Your task to perform on an android device: What's on my calendar today? Image 0: 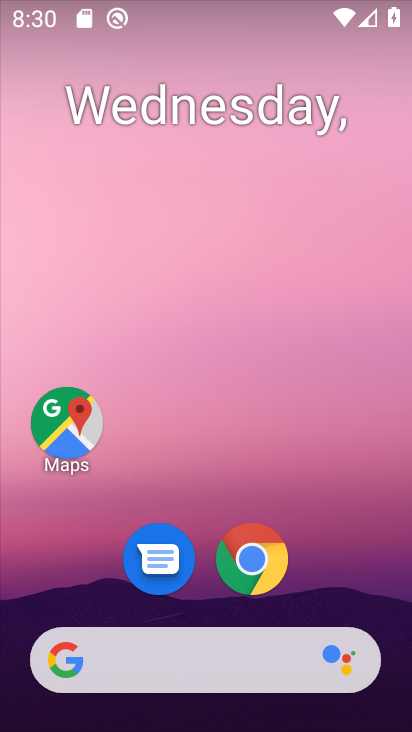
Step 0: drag from (350, 561) to (362, 160)
Your task to perform on an android device: What's on my calendar today? Image 1: 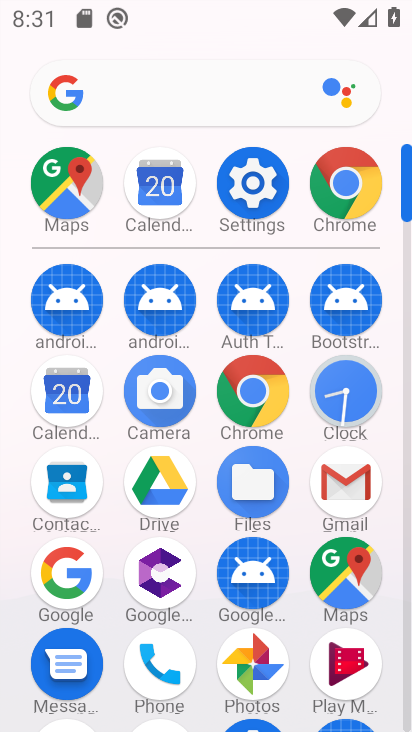
Step 1: click (64, 399)
Your task to perform on an android device: What's on my calendar today? Image 2: 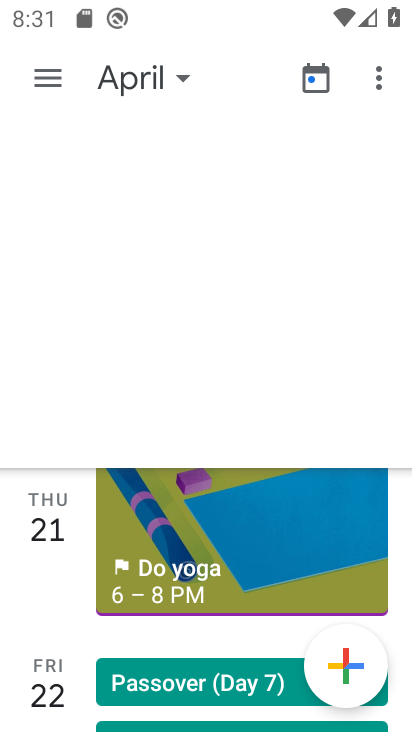
Step 2: click (131, 80)
Your task to perform on an android device: What's on my calendar today? Image 3: 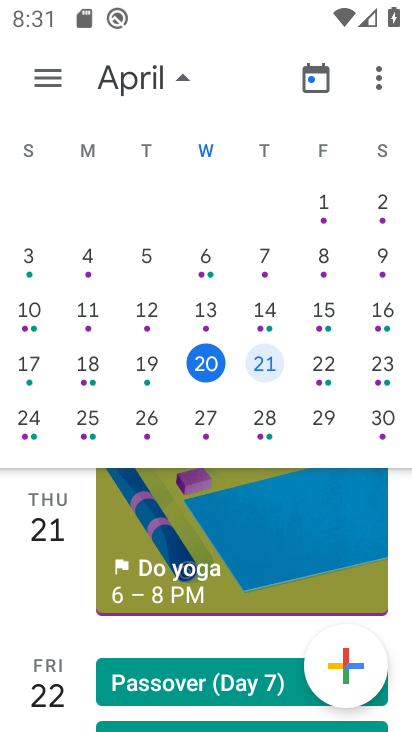
Step 3: click (205, 367)
Your task to perform on an android device: What's on my calendar today? Image 4: 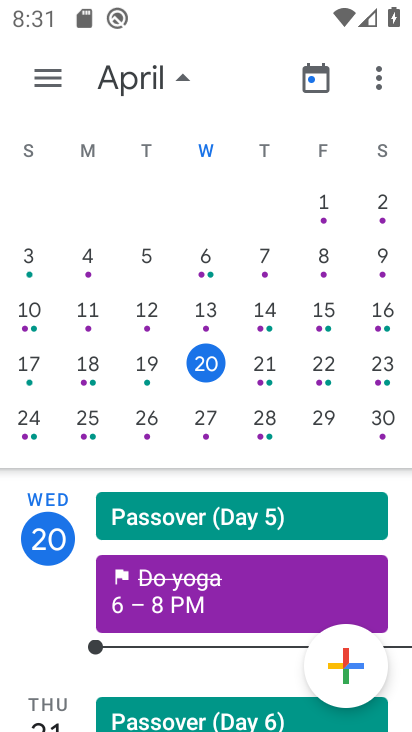
Step 4: task complete